Your task to perform on an android device: Go to privacy settings Image 0: 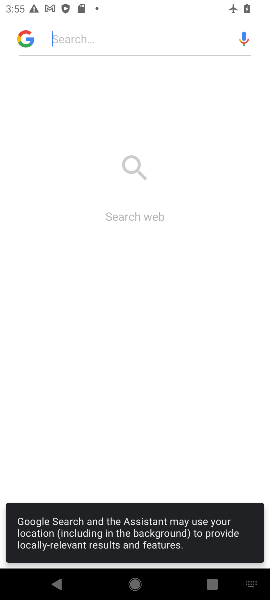
Step 0: press home button
Your task to perform on an android device: Go to privacy settings Image 1: 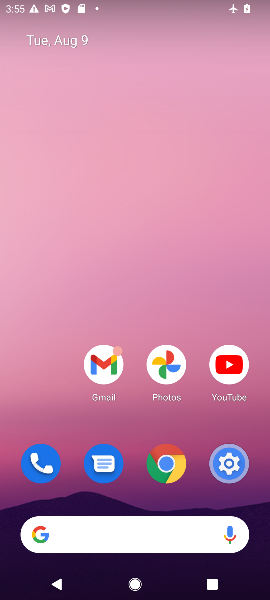
Step 1: click (237, 456)
Your task to perform on an android device: Go to privacy settings Image 2: 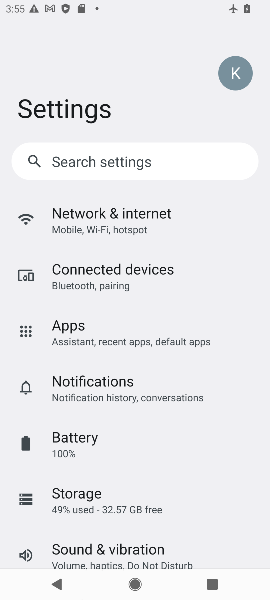
Step 2: drag from (118, 509) to (120, 226)
Your task to perform on an android device: Go to privacy settings Image 3: 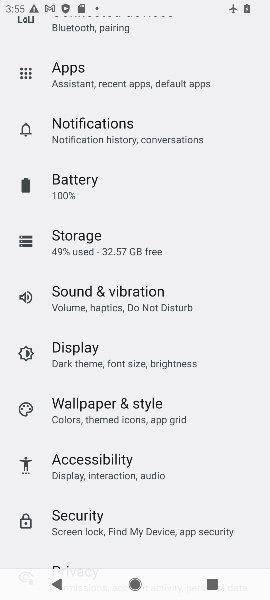
Step 3: drag from (60, 525) to (60, 256)
Your task to perform on an android device: Go to privacy settings Image 4: 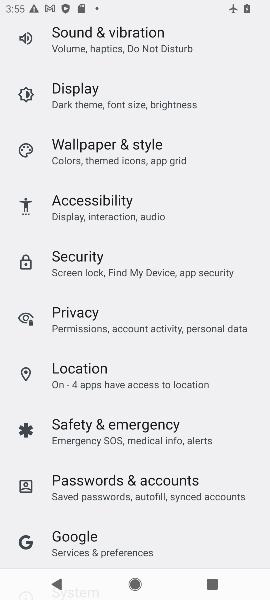
Step 4: click (69, 318)
Your task to perform on an android device: Go to privacy settings Image 5: 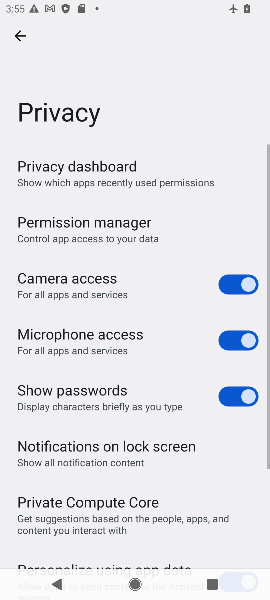
Step 5: task complete